Your task to perform on an android device: allow cookies in the chrome app Image 0: 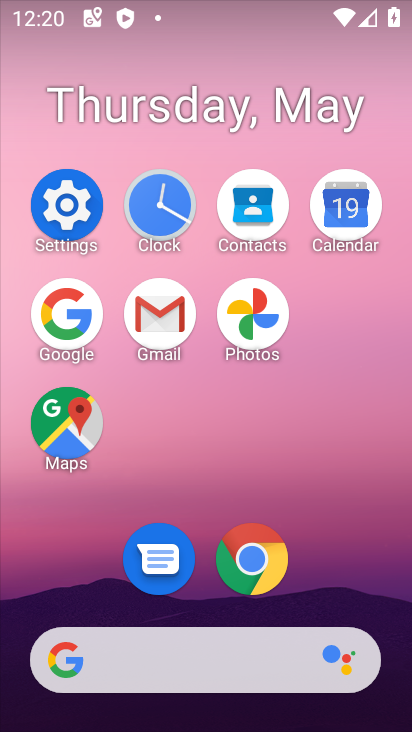
Step 0: click (278, 557)
Your task to perform on an android device: allow cookies in the chrome app Image 1: 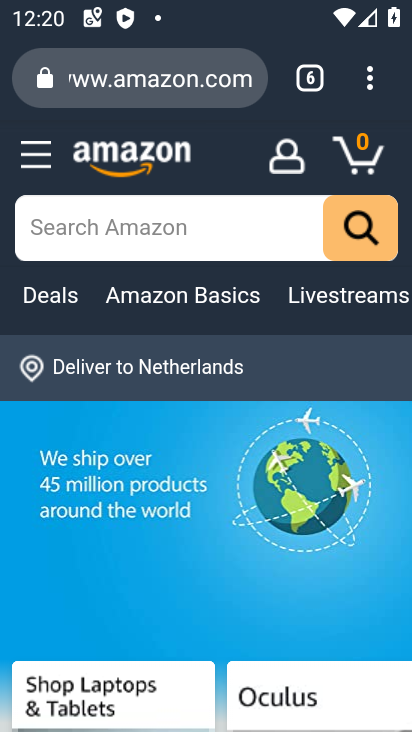
Step 1: click (381, 76)
Your task to perform on an android device: allow cookies in the chrome app Image 2: 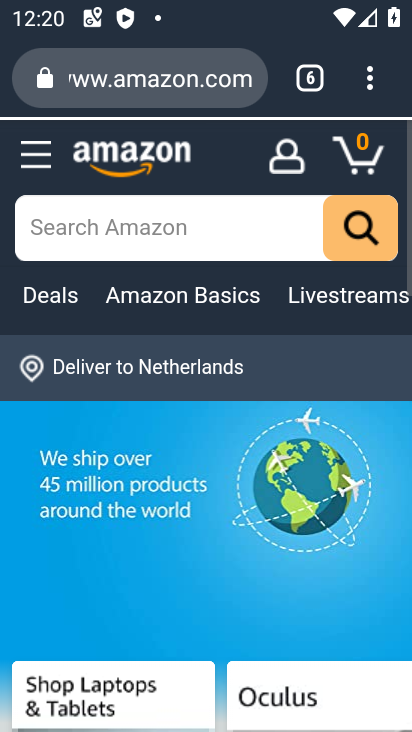
Step 2: click (366, 83)
Your task to perform on an android device: allow cookies in the chrome app Image 3: 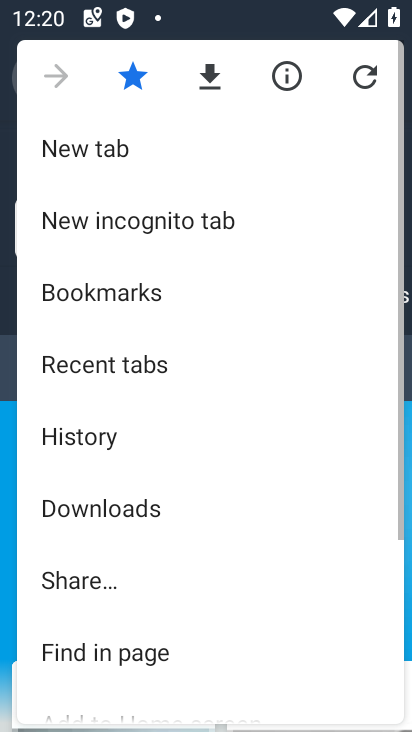
Step 3: drag from (215, 487) to (255, 98)
Your task to perform on an android device: allow cookies in the chrome app Image 4: 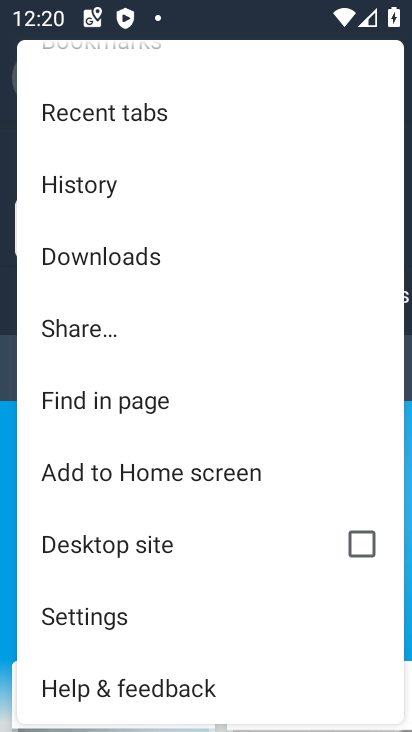
Step 4: click (178, 598)
Your task to perform on an android device: allow cookies in the chrome app Image 5: 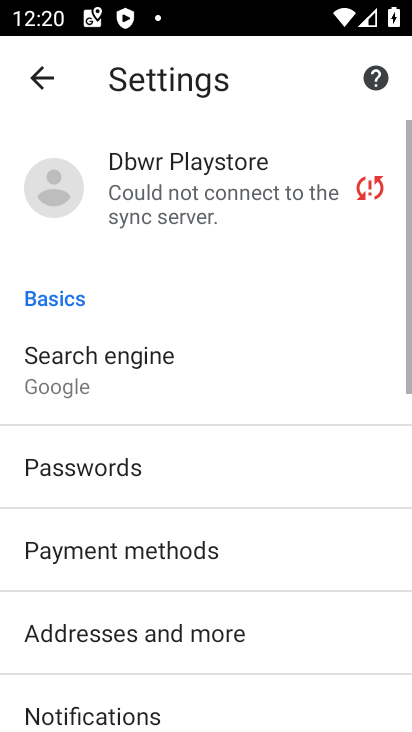
Step 5: drag from (178, 596) to (190, 255)
Your task to perform on an android device: allow cookies in the chrome app Image 6: 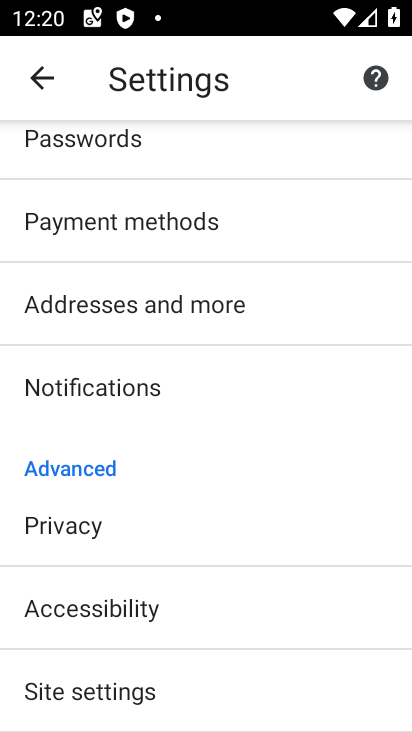
Step 6: drag from (262, 609) to (320, 267)
Your task to perform on an android device: allow cookies in the chrome app Image 7: 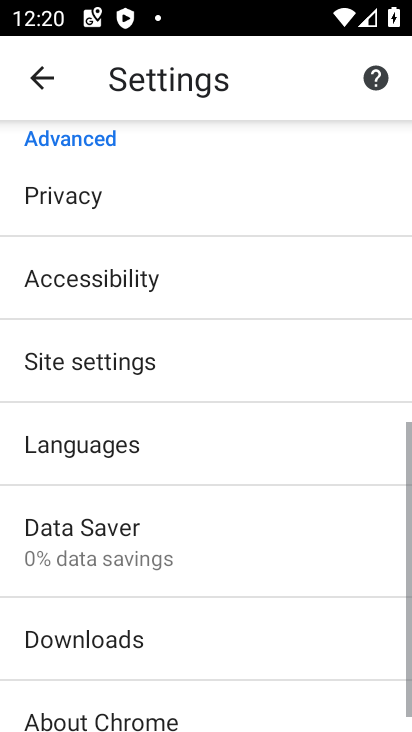
Step 7: click (218, 374)
Your task to perform on an android device: allow cookies in the chrome app Image 8: 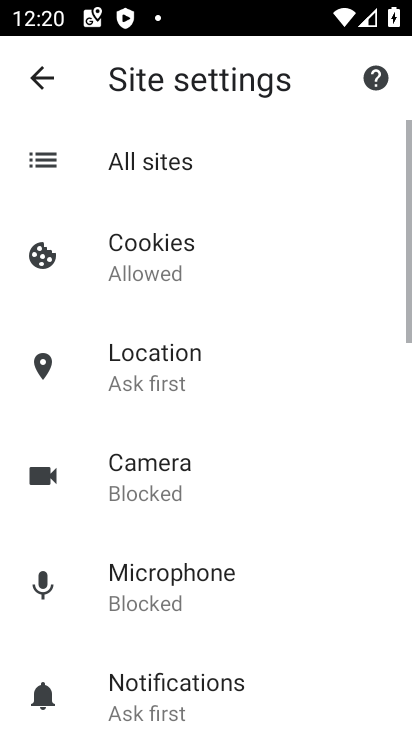
Step 8: click (198, 262)
Your task to perform on an android device: allow cookies in the chrome app Image 9: 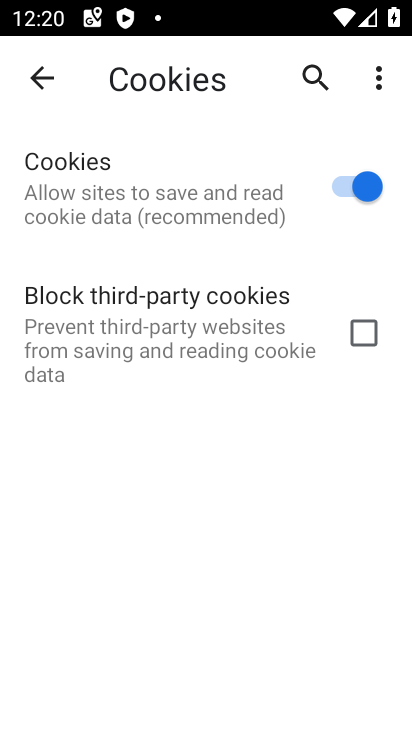
Step 9: task complete